Your task to perform on an android device: Search for "logitech g910" on target.com, select the first entry, add it to the cart, then select checkout. Image 0: 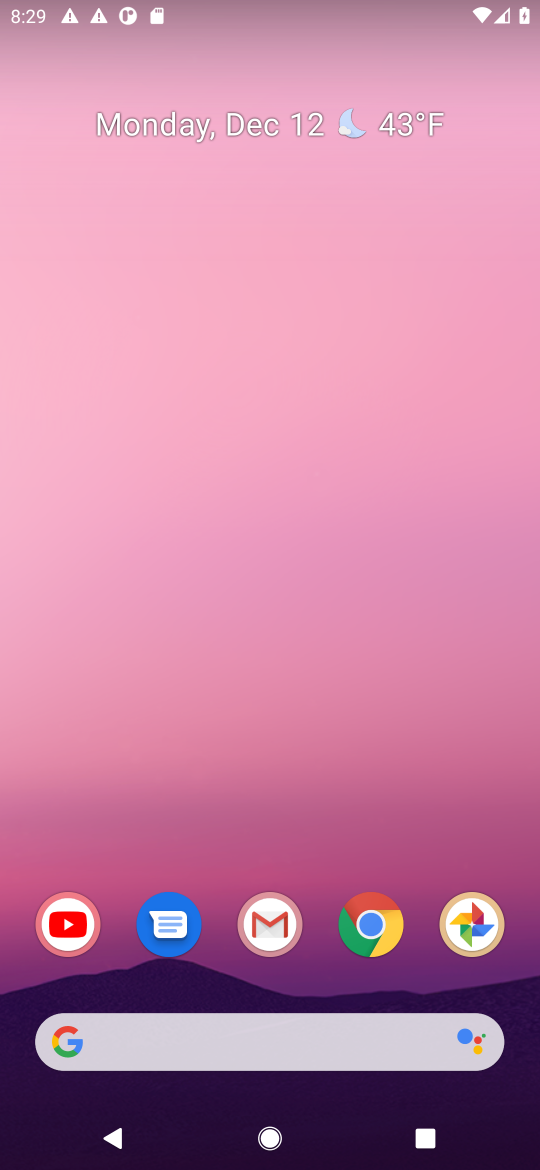
Step 0: drag from (206, 941) to (205, 451)
Your task to perform on an android device: Search for "logitech g910" on target.com, select the first entry, add it to the cart, then select checkout. Image 1: 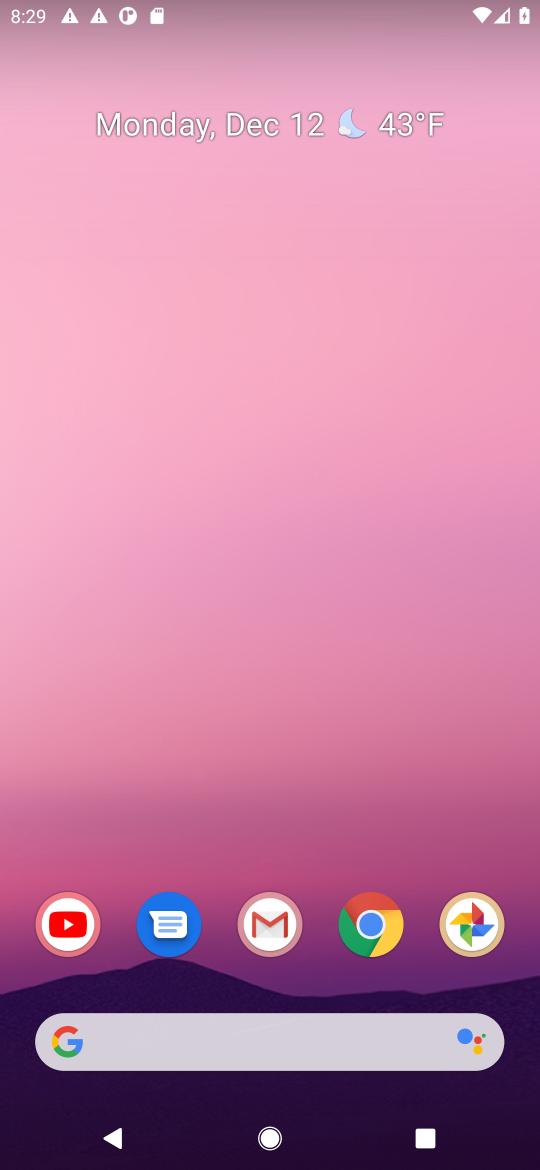
Step 1: click (197, 1053)
Your task to perform on an android device: Search for "logitech g910" on target.com, select the first entry, add it to the cart, then select checkout. Image 2: 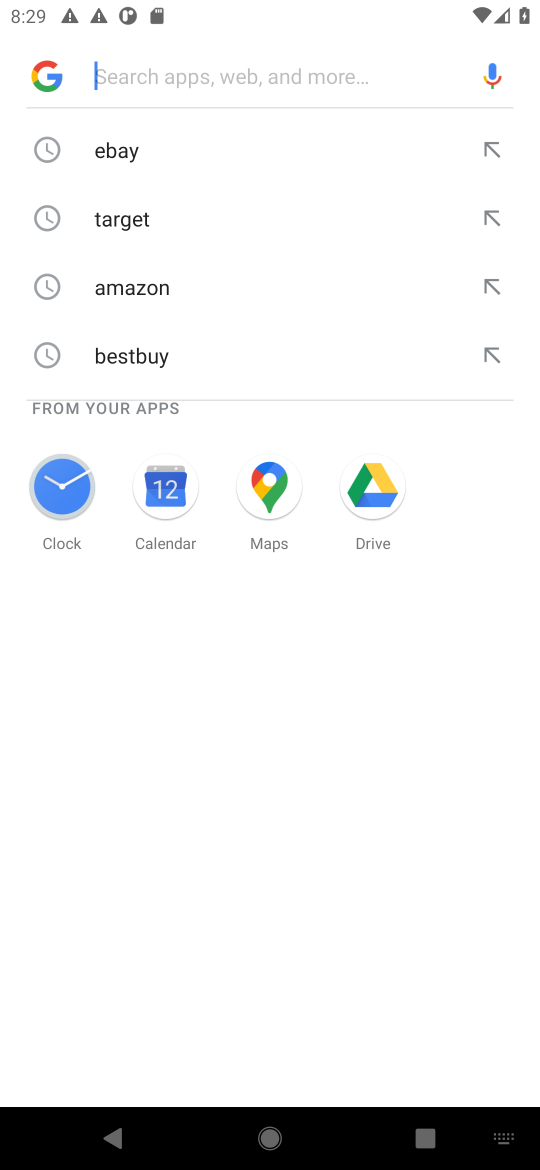
Step 2: click (109, 215)
Your task to perform on an android device: Search for "logitech g910" on target.com, select the first entry, add it to the cart, then select checkout. Image 3: 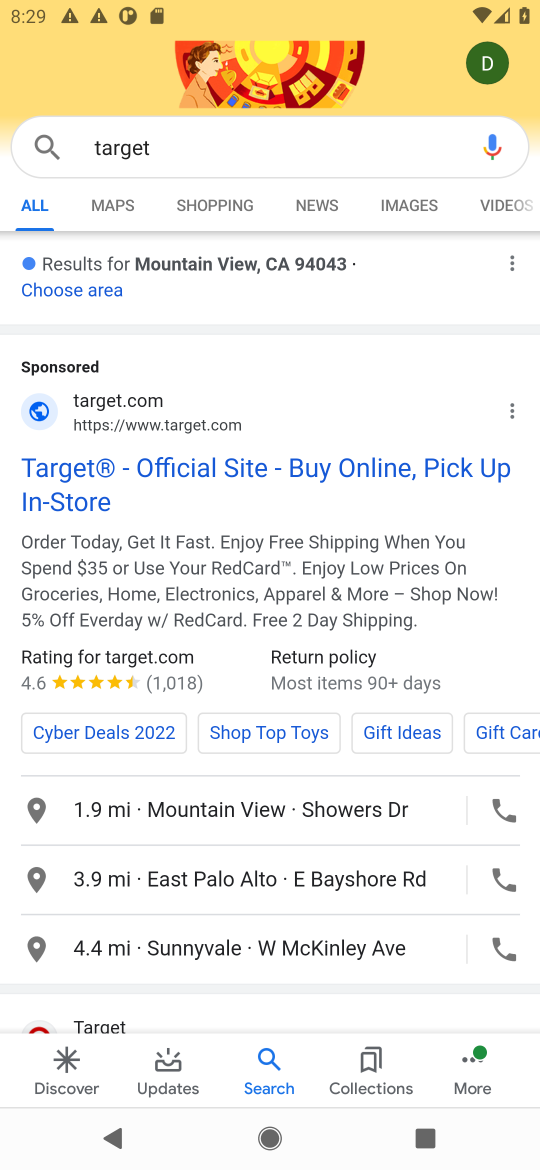
Step 3: drag from (165, 871) to (165, 674)
Your task to perform on an android device: Search for "logitech g910" on target.com, select the first entry, add it to the cart, then select checkout. Image 4: 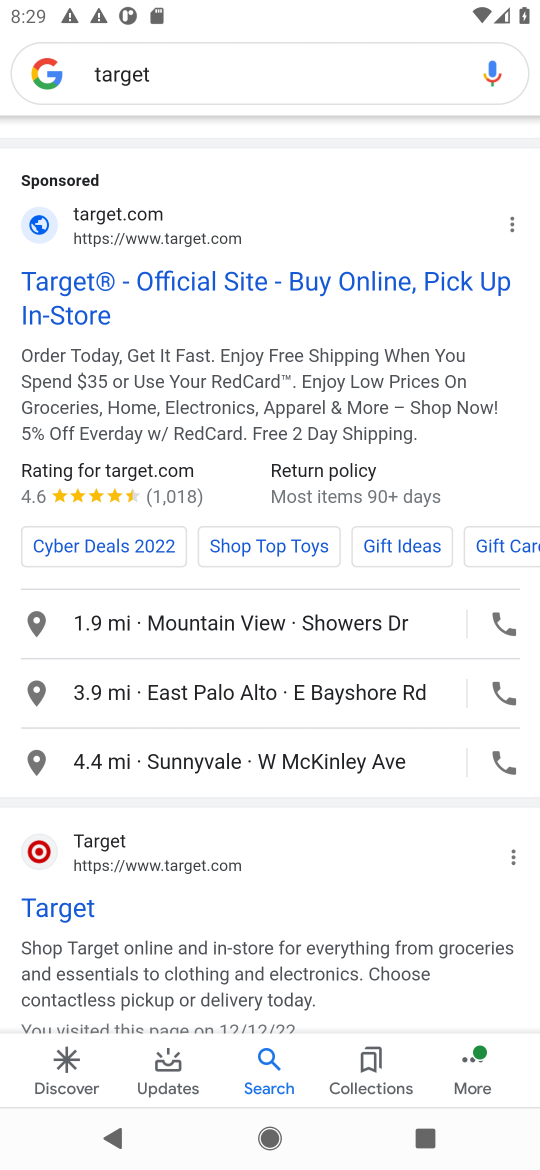
Step 4: click (94, 868)
Your task to perform on an android device: Search for "logitech g910" on target.com, select the first entry, add it to the cart, then select checkout. Image 5: 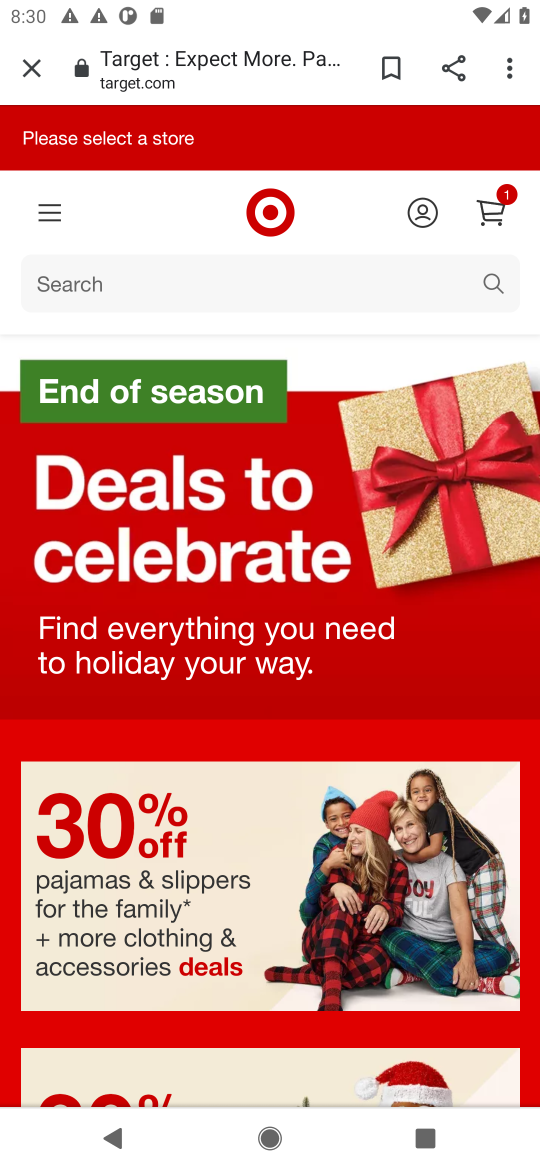
Step 5: click (290, 290)
Your task to perform on an android device: Search for "logitech g910" on target.com, select the first entry, add it to the cart, then select checkout. Image 6: 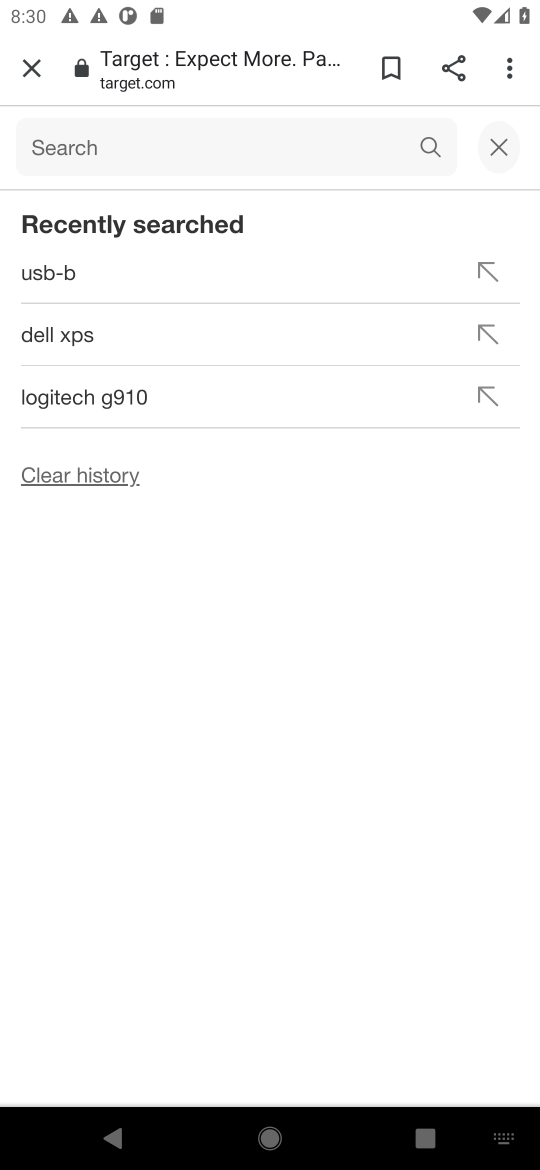
Step 6: type "logitech g910"
Your task to perform on an android device: Search for "logitech g910" on target.com, select the first entry, add it to the cart, then select checkout. Image 7: 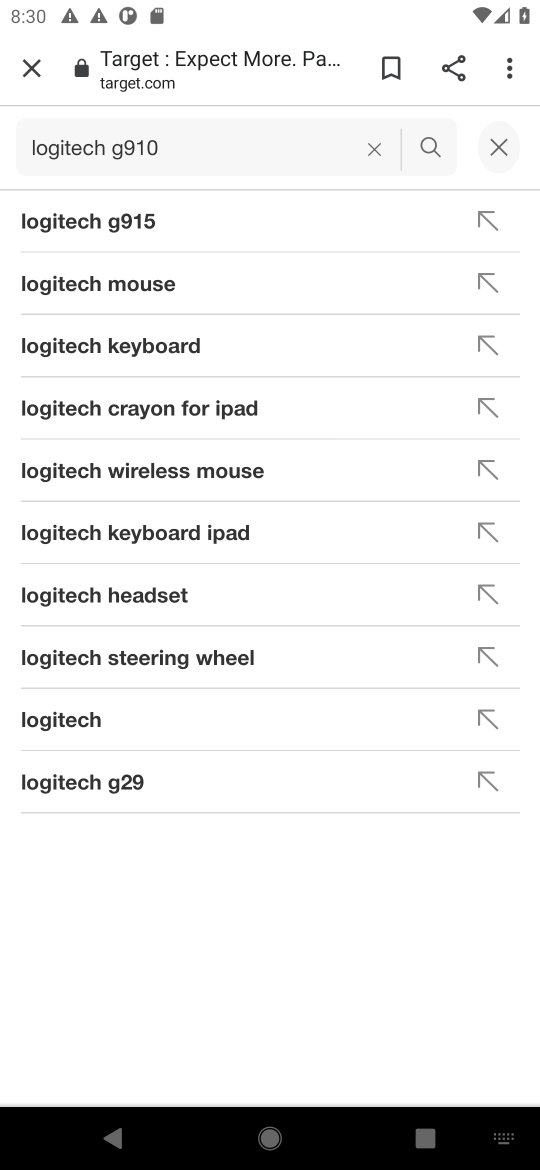
Step 7: click (431, 143)
Your task to perform on an android device: Search for "logitech g910" on target.com, select the first entry, add it to the cart, then select checkout. Image 8: 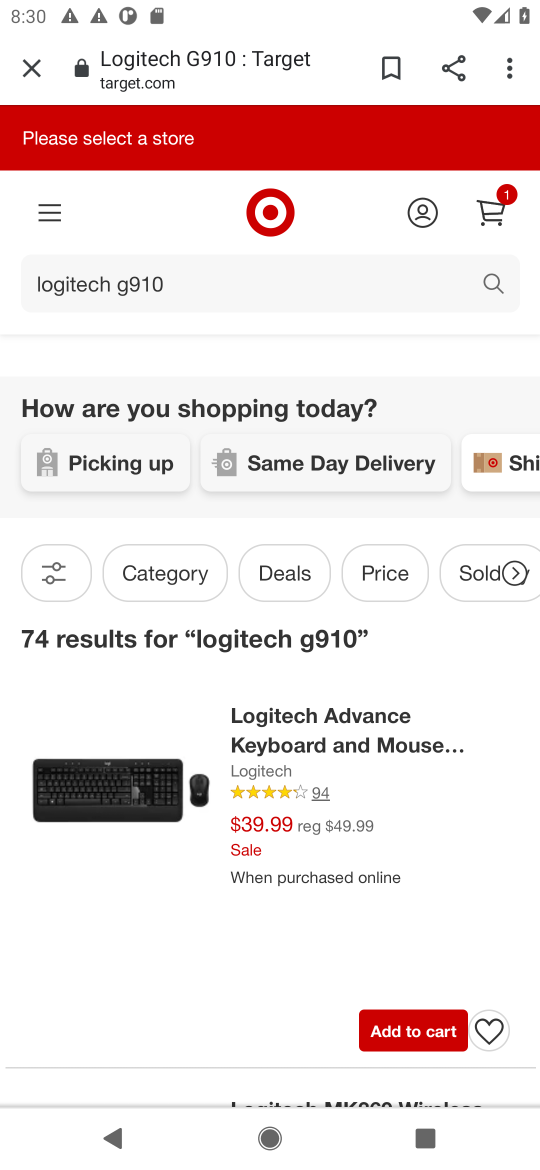
Step 8: click (406, 1024)
Your task to perform on an android device: Search for "logitech g910" on target.com, select the first entry, add it to the cart, then select checkout. Image 9: 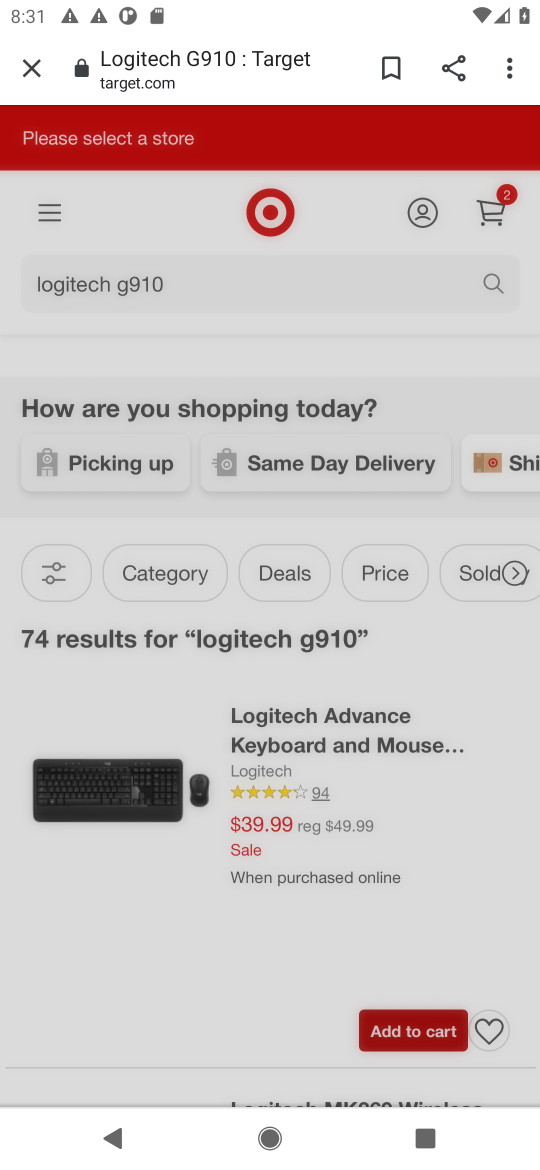
Step 9: click (503, 217)
Your task to perform on an android device: Search for "logitech g910" on target.com, select the first entry, add it to the cart, then select checkout. Image 10: 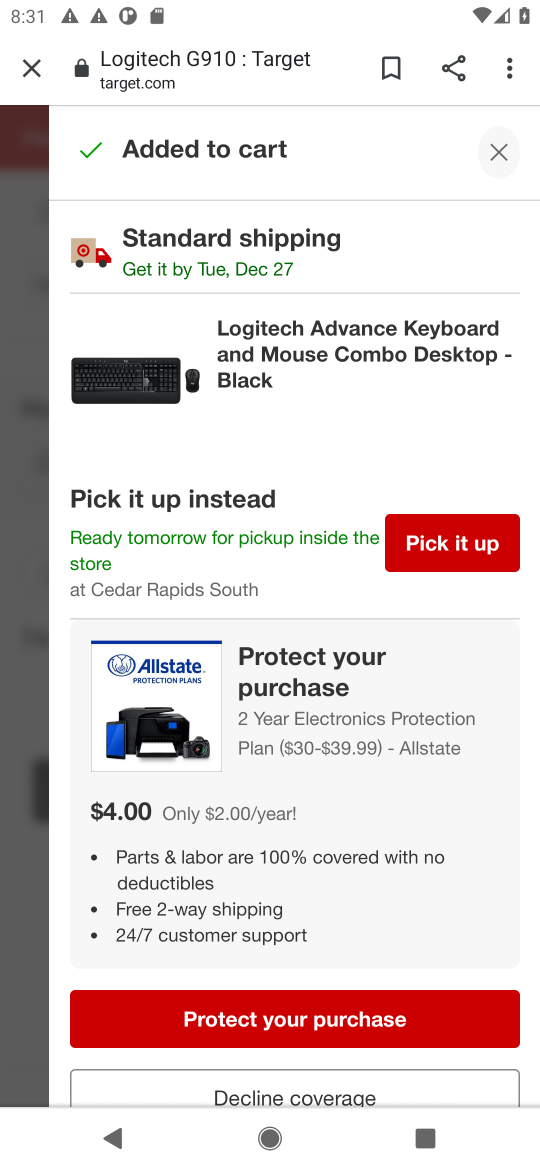
Step 10: click (286, 1085)
Your task to perform on an android device: Search for "logitech g910" on target.com, select the first entry, add it to the cart, then select checkout. Image 11: 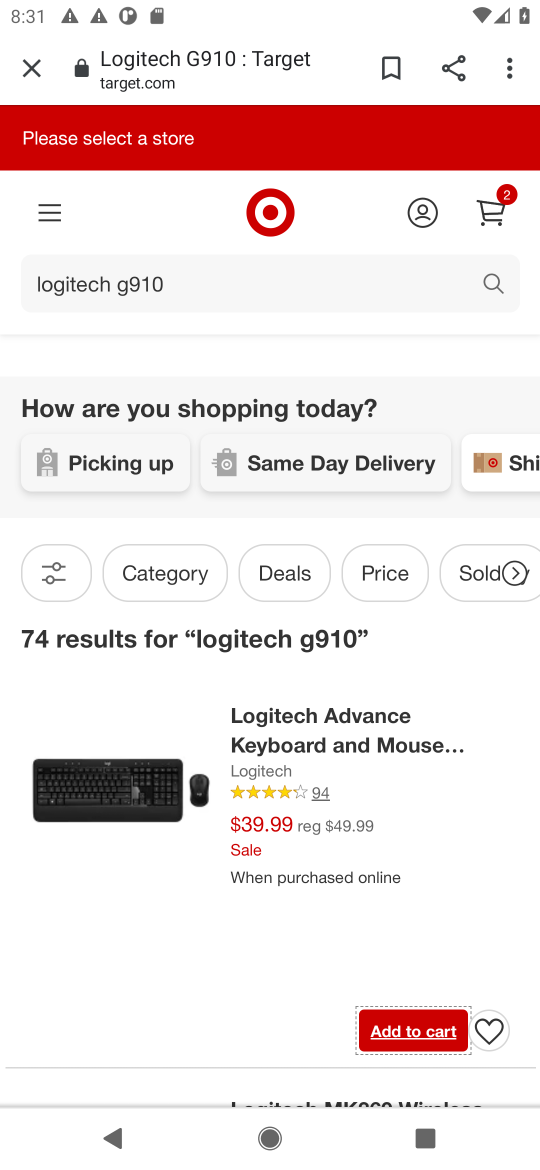
Step 11: click (495, 206)
Your task to perform on an android device: Search for "logitech g910" on target.com, select the first entry, add it to the cart, then select checkout. Image 12: 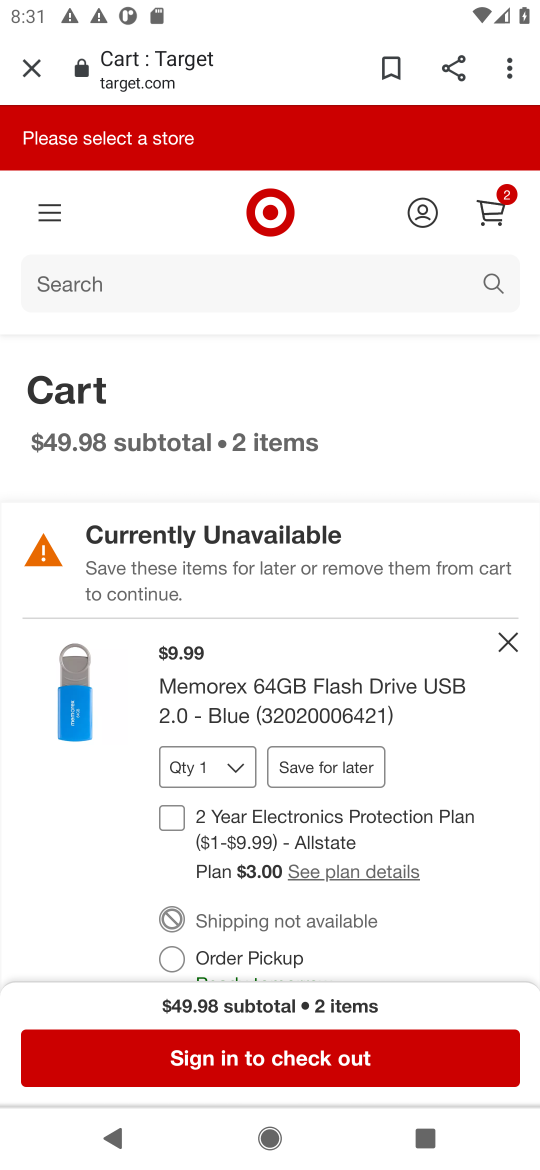
Step 12: click (251, 1049)
Your task to perform on an android device: Search for "logitech g910" on target.com, select the first entry, add it to the cart, then select checkout. Image 13: 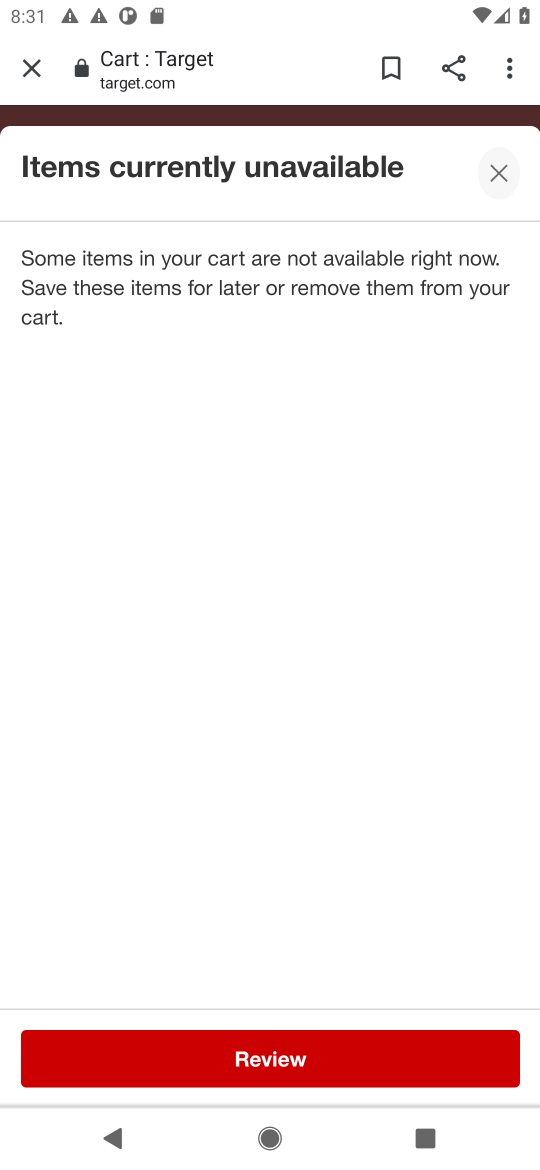
Step 13: task complete